Your task to perform on an android device: What's on my calendar tomorrow? Image 0: 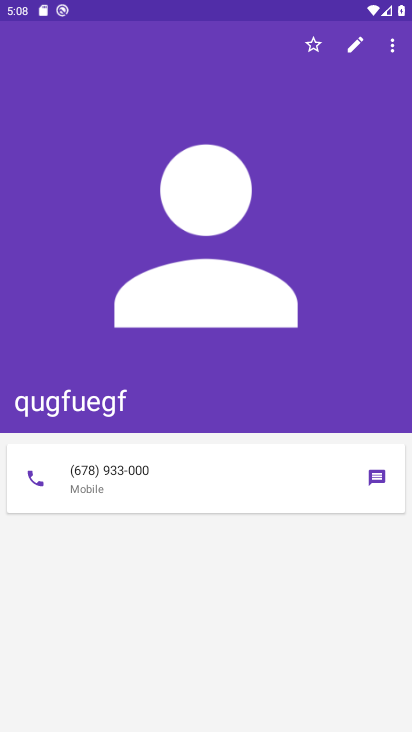
Step 0: press home button
Your task to perform on an android device: What's on my calendar tomorrow? Image 1: 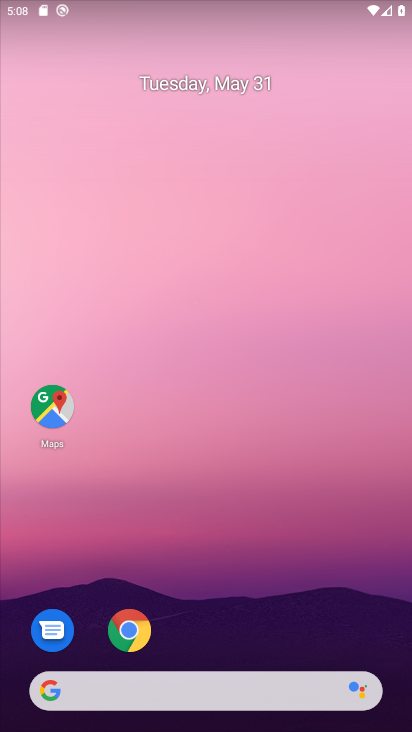
Step 1: drag from (275, 507) to (280, 45)
Your task to perform on an android device: What's on my calendar tomorrow? Image 2: 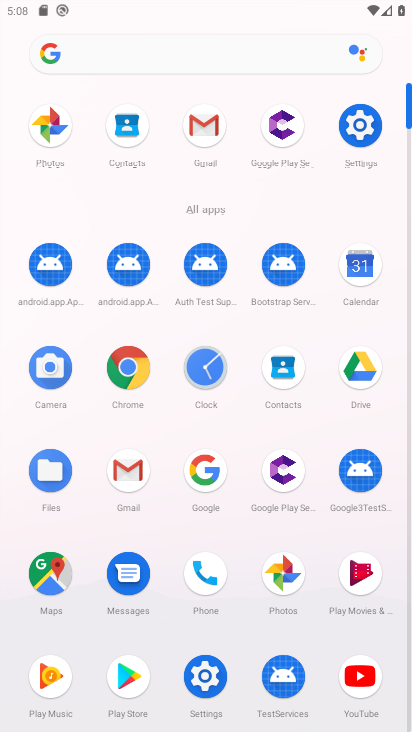
Step 2: click (357, 270)
Your task to perform on an android device: What's on my calendar tomorrow? Image 3: 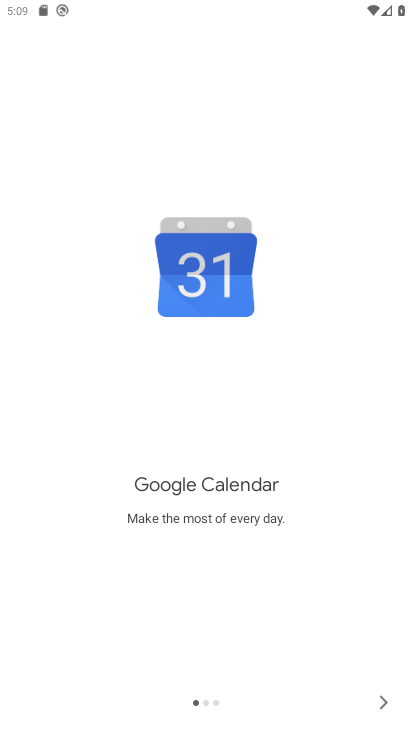
Step 3: click (385, 705)
Your task to perform on an android device: What's on my calendar tomorrow? Image 4: 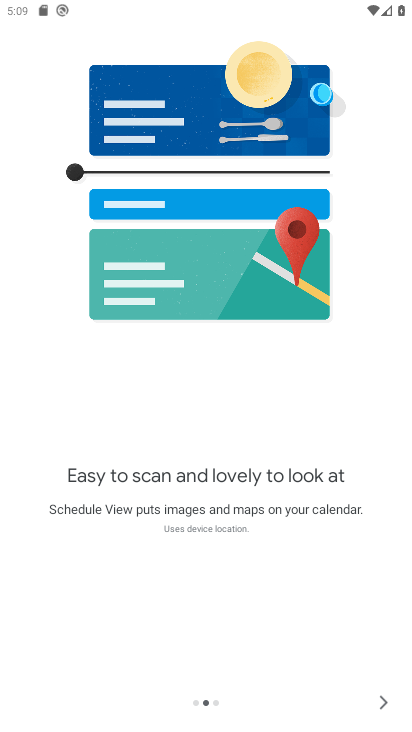
Step 4: click (389, 694)
Your task to perform on an android device: What's on my calendar tomorrow? Image 5: 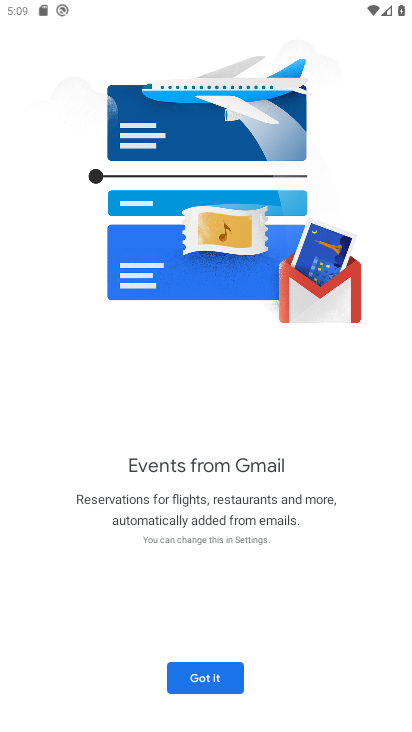
Step 5: click (204, 670)
Your task to perform on an android device: What's on my calendar tomorrow? Image 6: 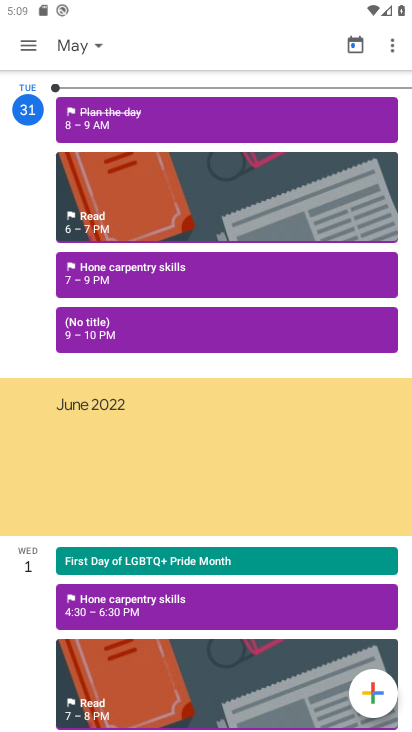
Step 6: task complete